Your task to perform on an android device: toggle location history Image 0: 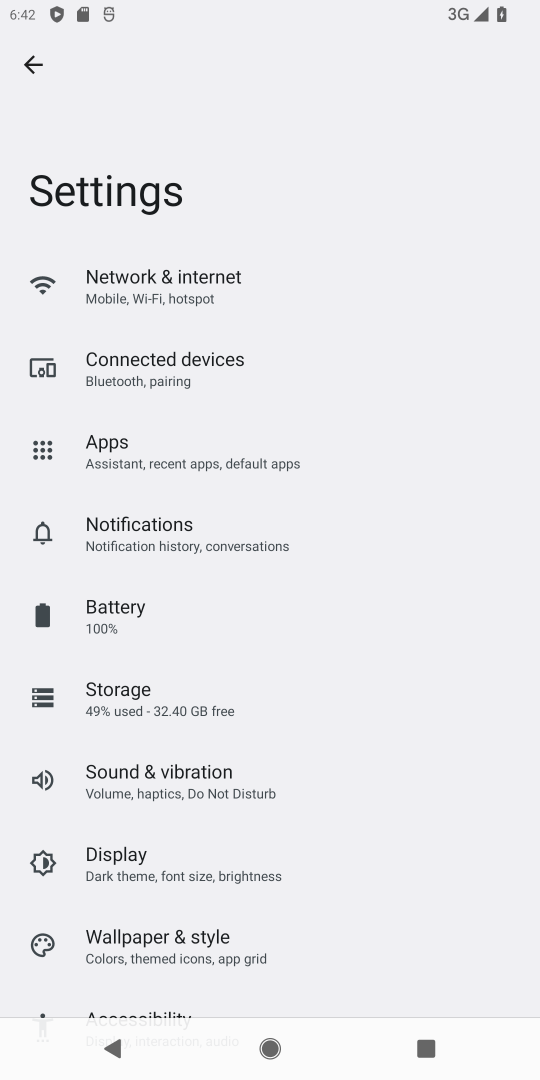
Step 0: press home button
Your task to perform on an android device: toggle location history Image 1: 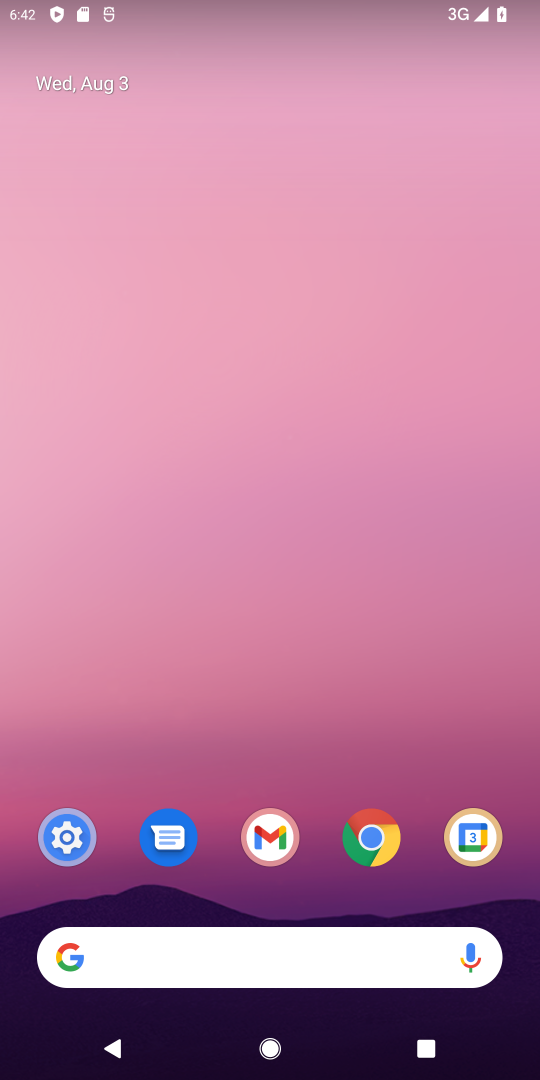
Step 1: click (65, 844)
Your task to perform on an android device: toggle location history Image 2: 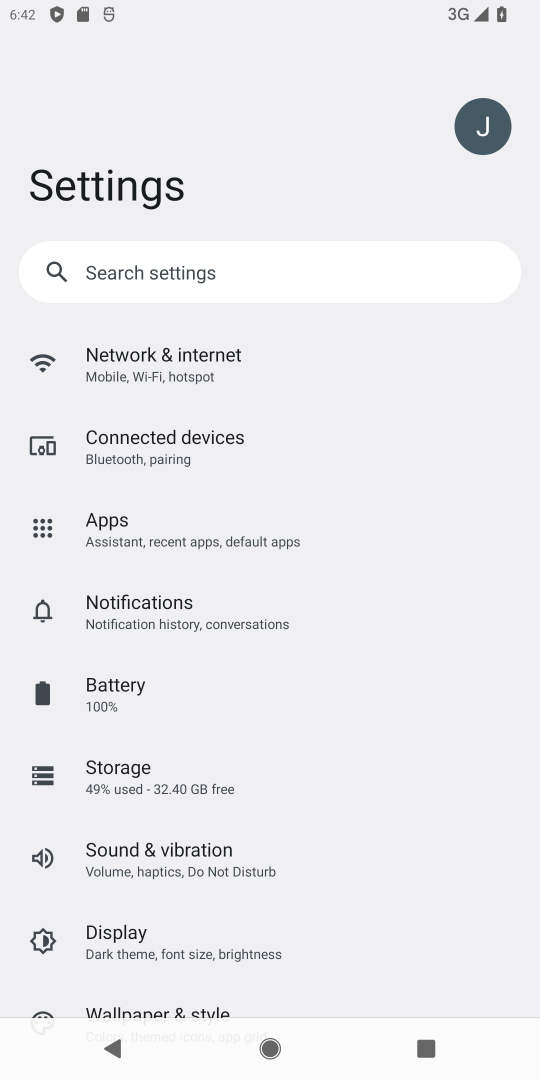
Step 2: drag from (343, 966) to (304, 249)
Your task to perform on an android device: toggle location history Image 3: 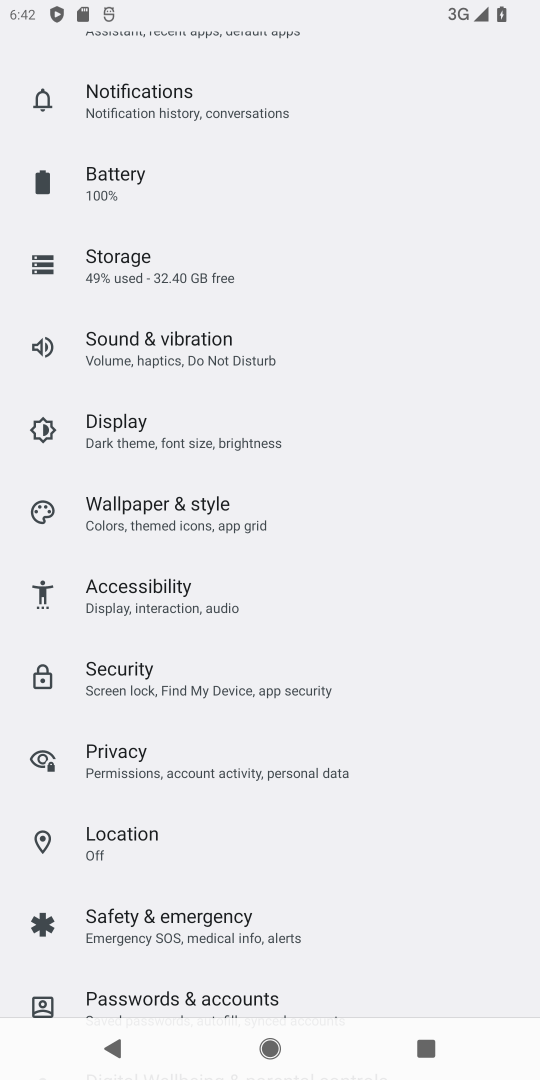
Step 3: click (106, 855)
Your task to perform on an android device: toggle location history Image 4: 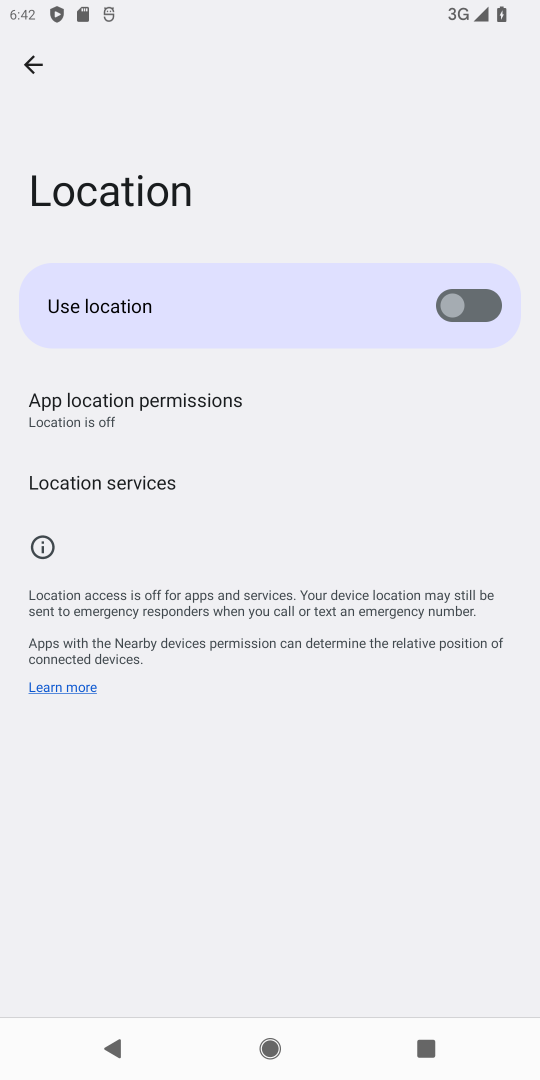
Step 4: click (97, 479)
Your task to perform on an android device: toggle location history Image 5: 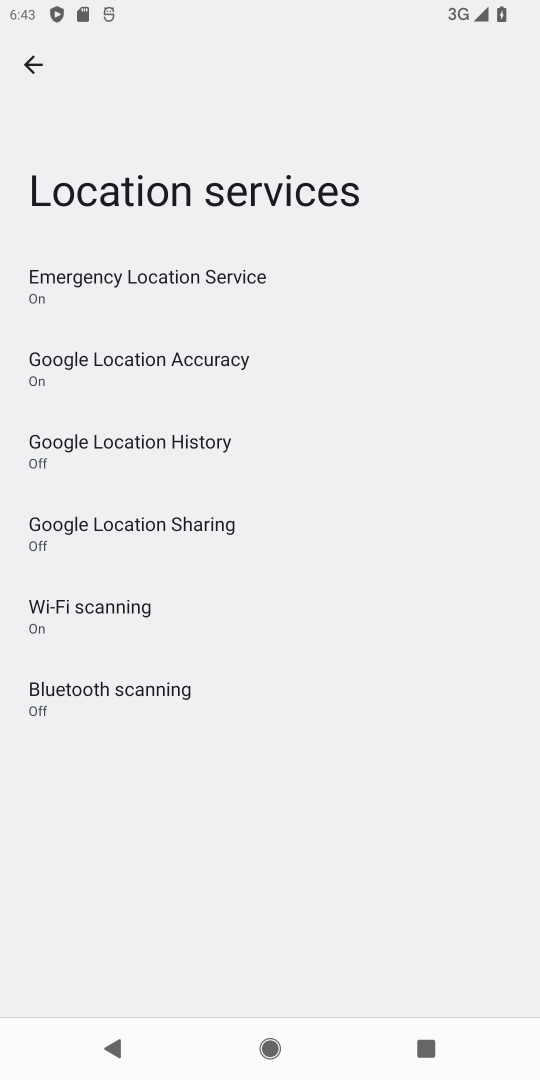
Step 5: click (149, 451)
Your task to perform on an android device: toggle location history Image 6: 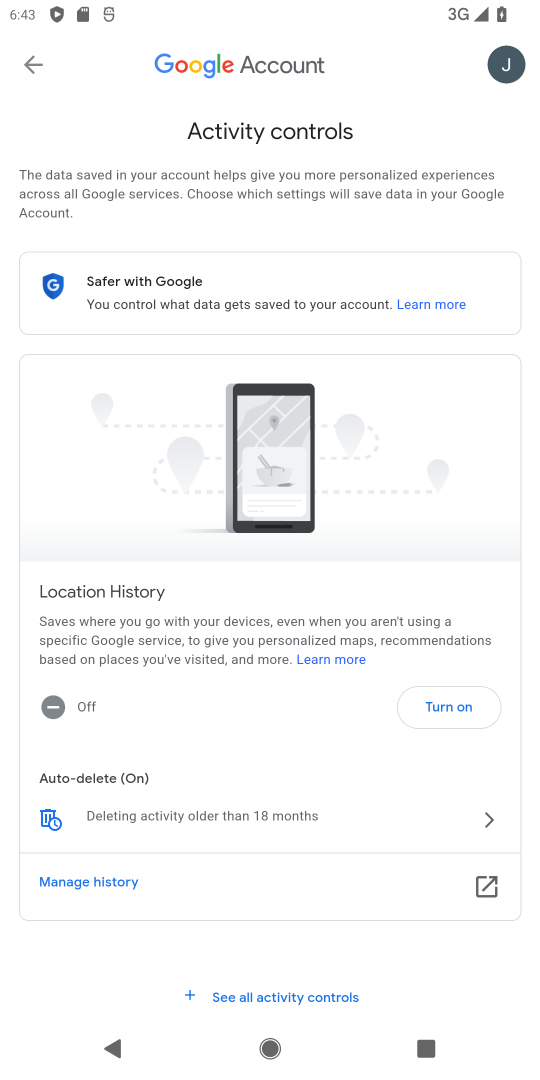
Step 6: click (444, 715)
Your task to perform on an android device: toggle location history Image 7: 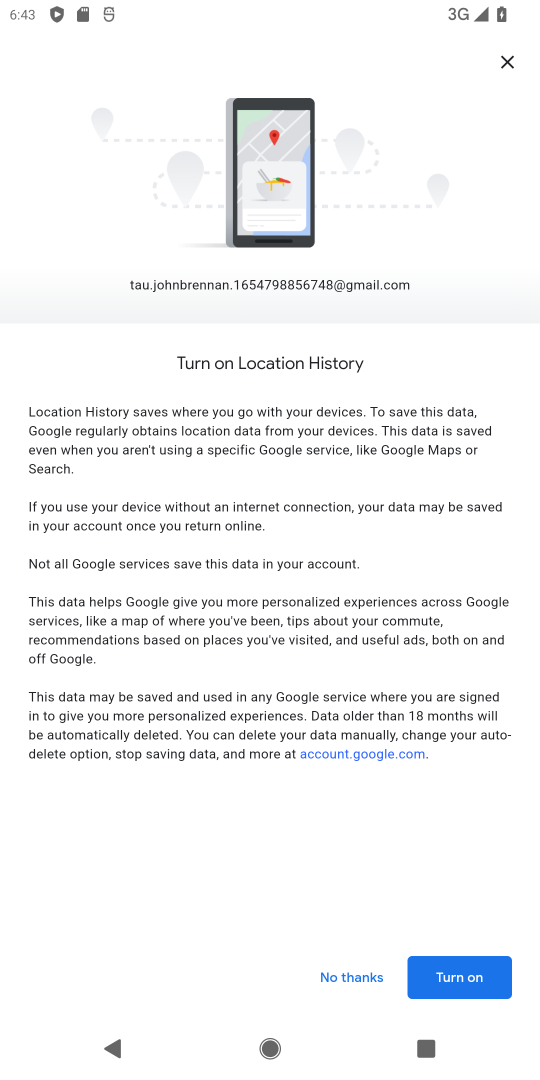
Step 7: click (478, 983)
Your task to perform on an android device: toggle location history Image 8: 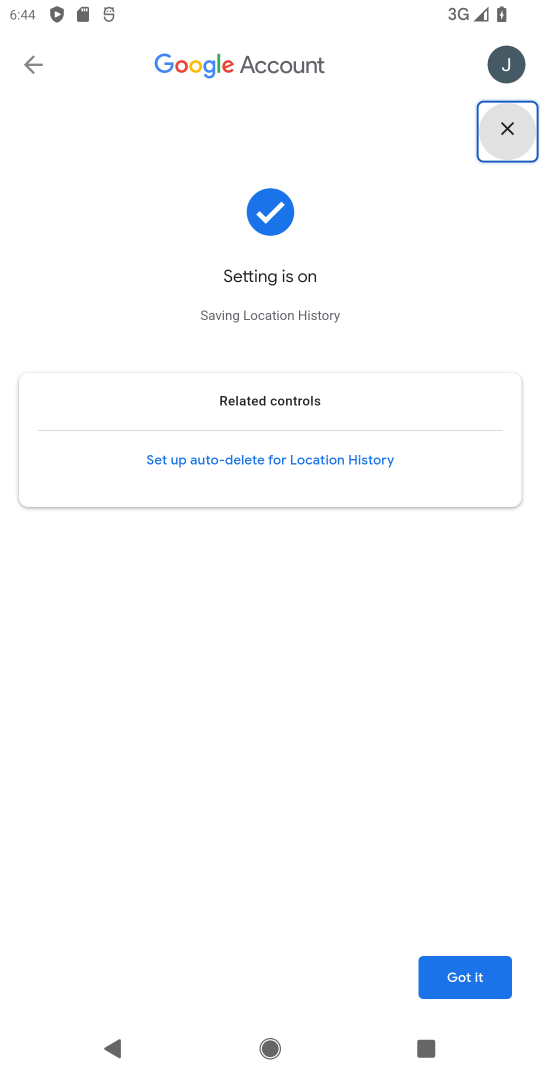
Step 8: press home button
Your task to perform on an android device: toggle location history Image 9: 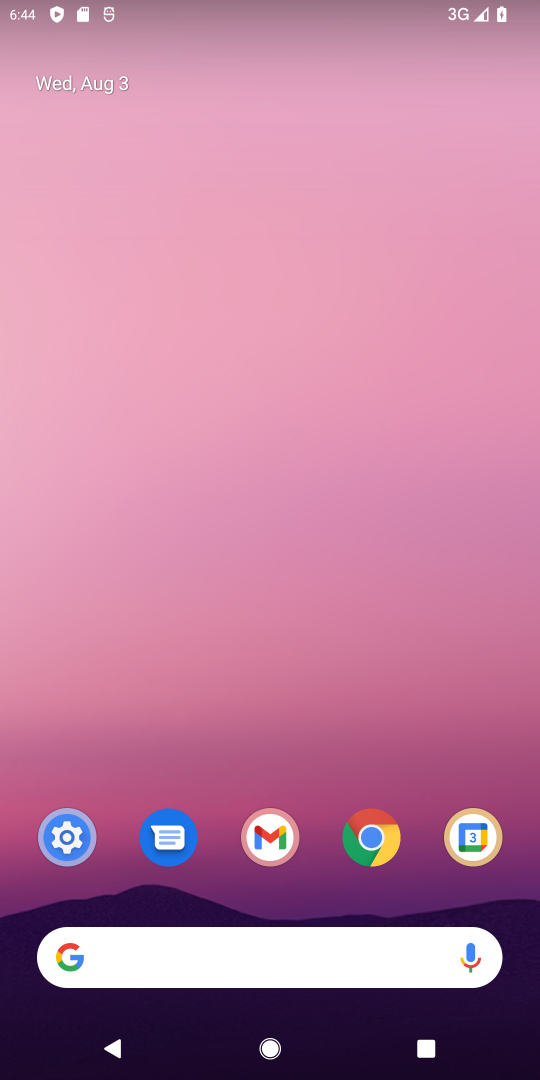
Step 9: drag from (310, 777) to (341, 79)
Your task to perform on an android device: toggle location history Image 10: 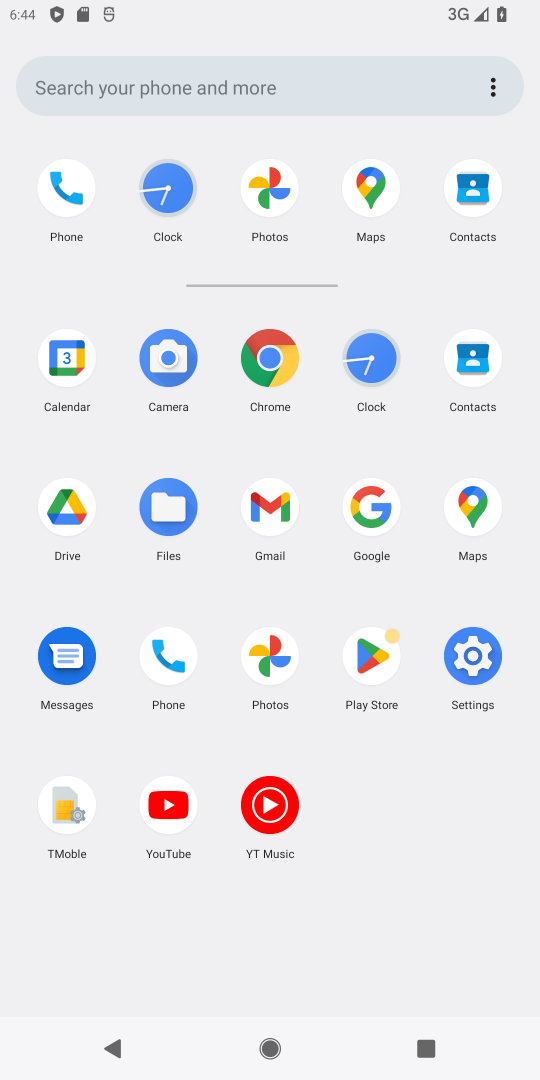
Step 10: click (473, 648)
Your task to perform on an android device: toggle location history Image 11: 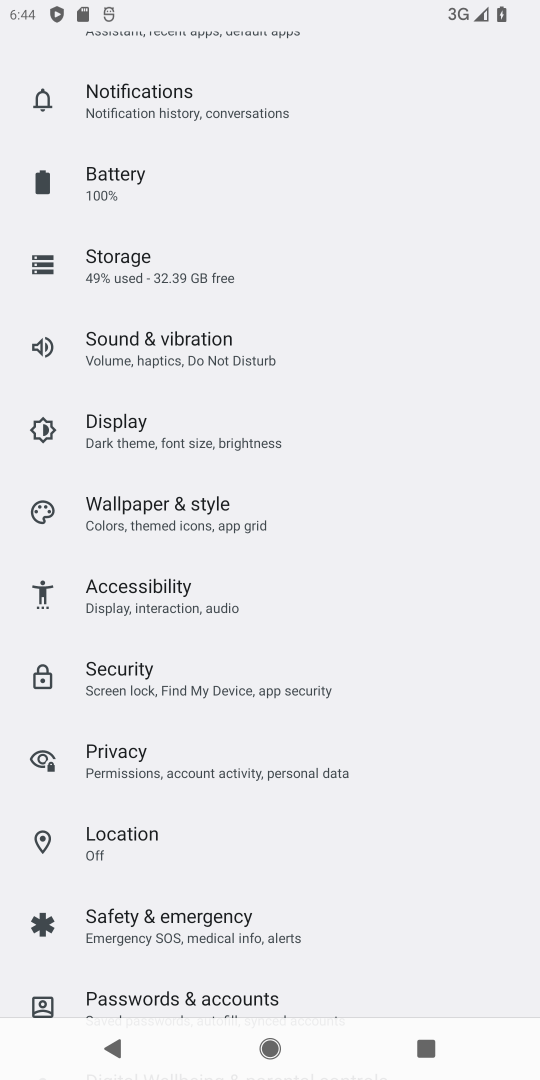
Step 11: click (144, 855)
Your task to perform on an android device: toggle location history Image 12: 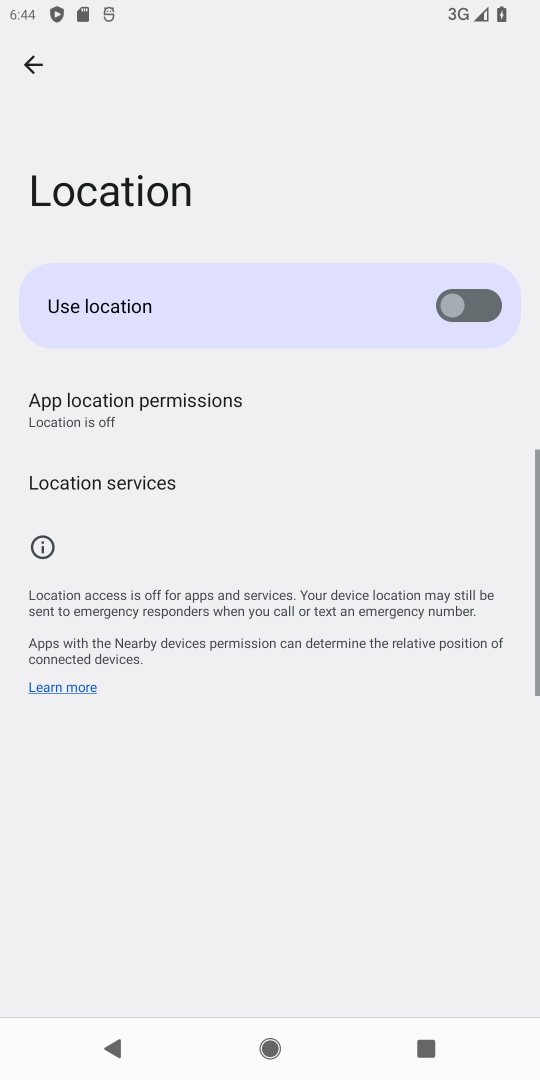
Step 12: click (475, 299)
Your task to perform on an android device: toggle location history Image 13: 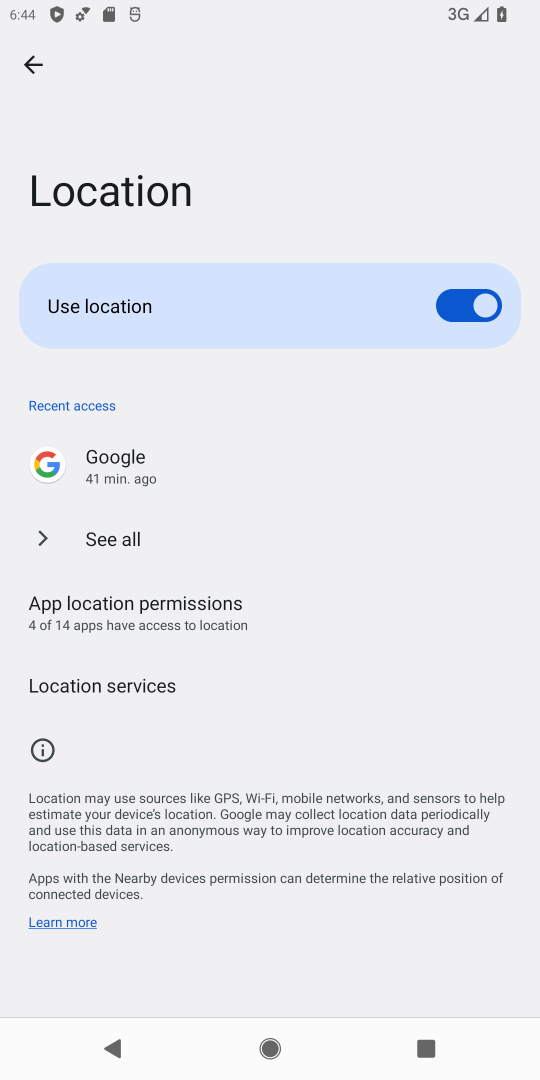
Step 13: task complete